Your task to perform on an android device: Go to location settings Image 0: 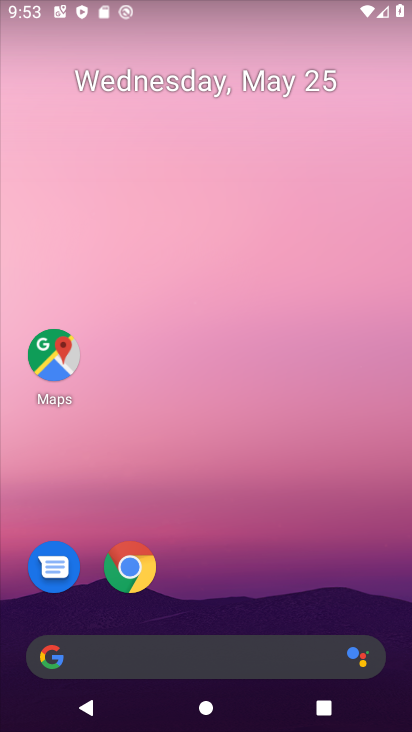
Step 0: drag from (279, 571) to (271, 64)
Your task to perform on an android device: Go to location settings Image 1: 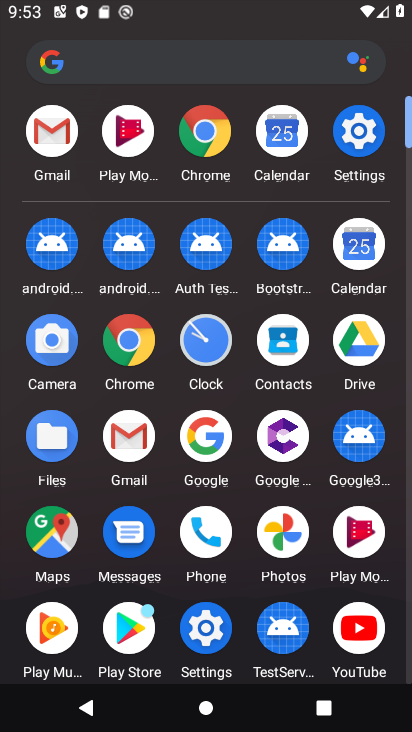
Step 1: click (361, 148)
Your task to perform on an android device: Go to location settings Image 2: 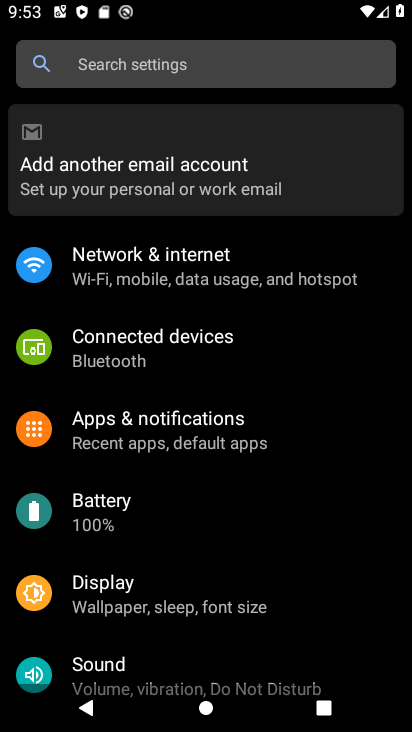
Step 2: drag from (179, 621) to (254, 245)
Your task to perform on an android device: Go to location settings Image 3: 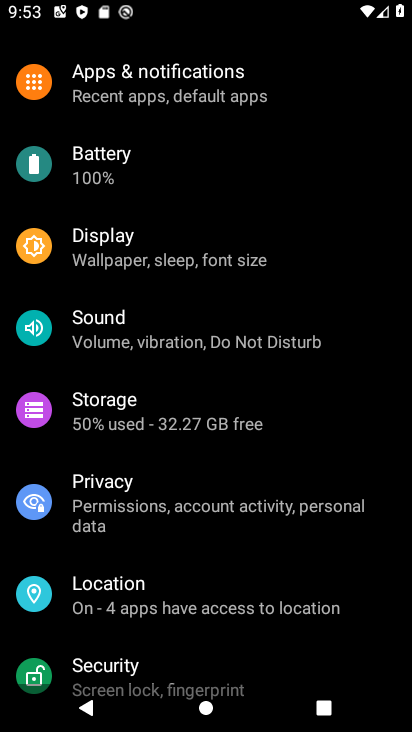
Step 3: click (203, 577)
Your task to perform on an android device: Go to location settings Image 4: 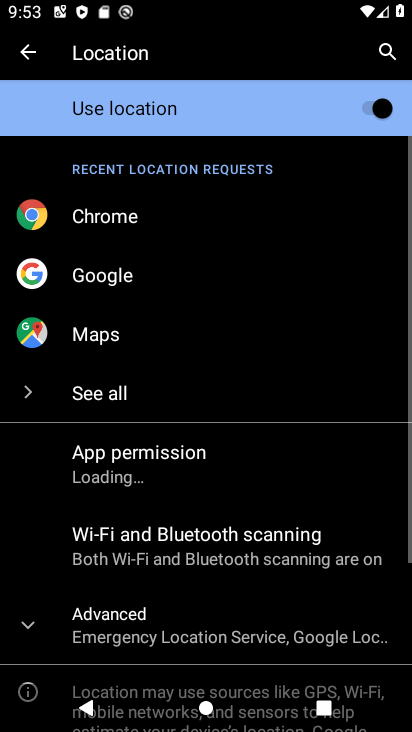
Step 4: task complete